Your task to perform on an android device: turn on data saver in the chrome app Image 0: 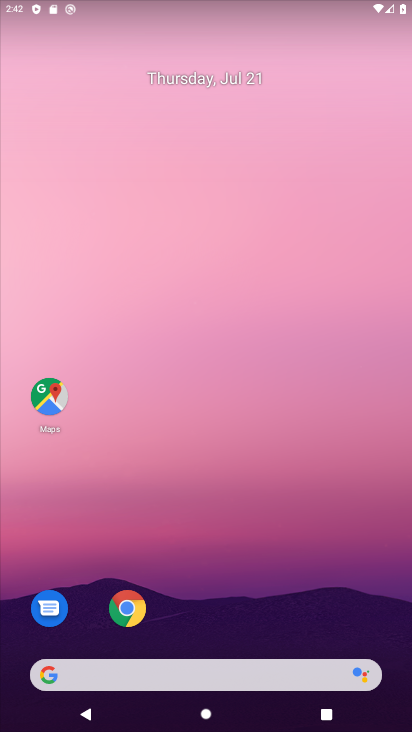
Step 0: click (131, 618)
Your task to perform on an android device: turn on data saver in the chrome app Image 1: 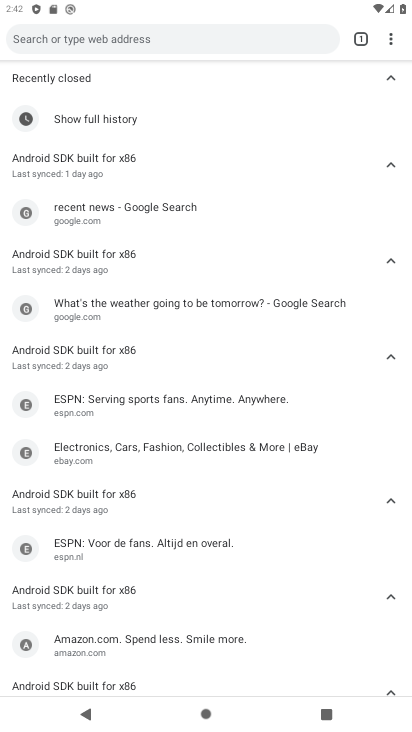
Step 1: drag from (394, 43) to (263, 373)
Your task to perform on an android device: turn on data saver in the chrome app Image 2: 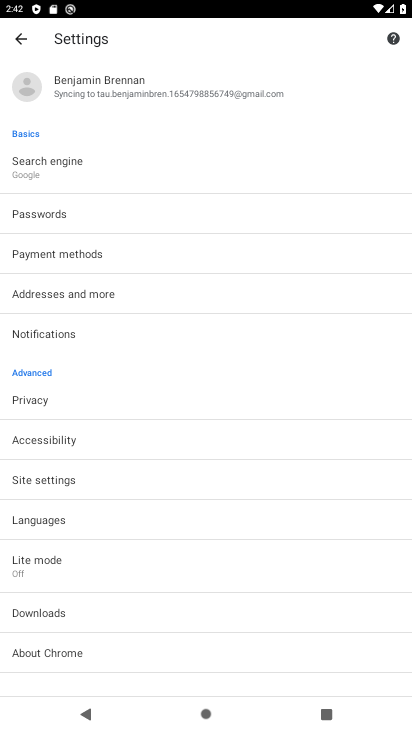
Step 2: click (85, 560)
Your task to perform on an android device: turn on data saver in the chrome app Image 3: 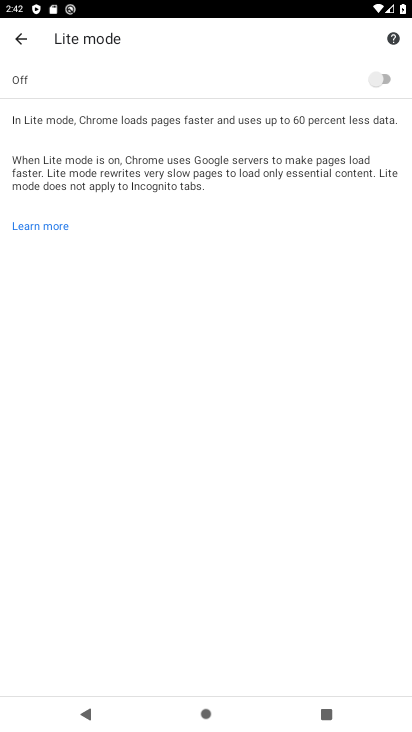
Step 3: click (384, 83)
Your task to perform on an android device: turn on data saver in the chrome app Image 4: 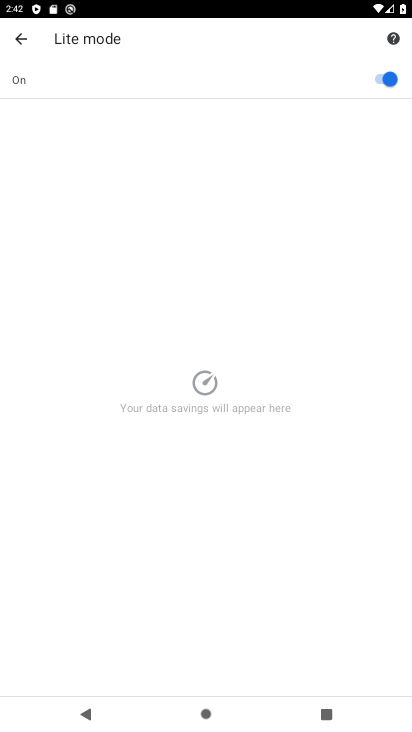
Step 4: task complete